Your task to perform on an android device: Open Chrome and go to settings Image 0: 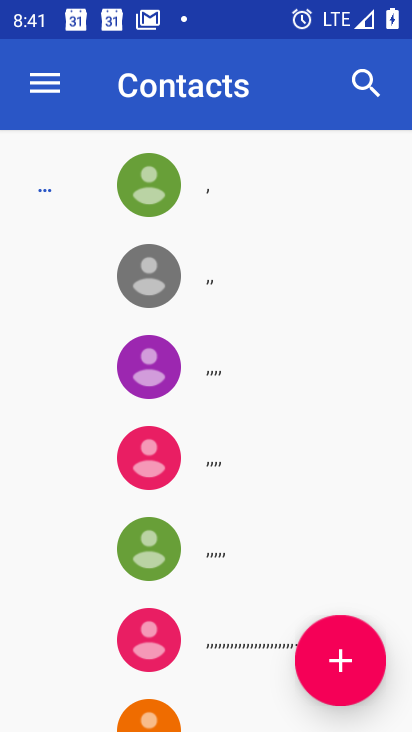
Step 0: press home button
Your task to perform on an android device: Open Chrome and go to settings Image 1: 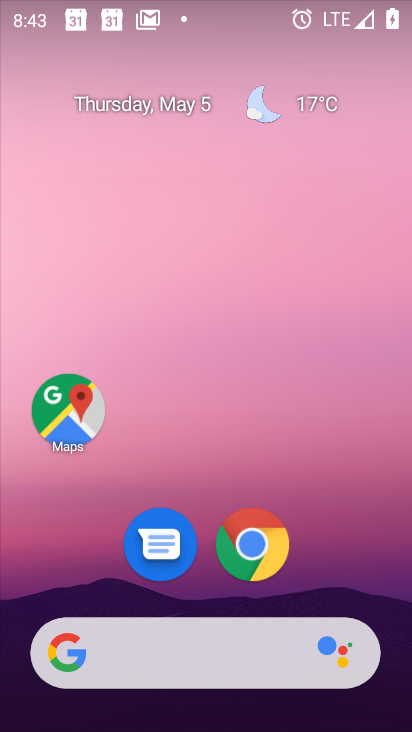
Step 1: click (285, 552)
Your task to perform on an android device: Open Chrome and go to settings Image 2: 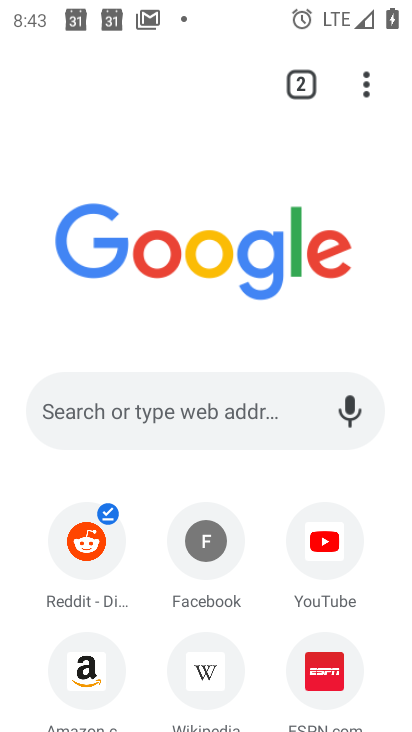
Step 2: click (361, 97)
Your task to perform on an android device: Open Chrome and go to settings Image 3: 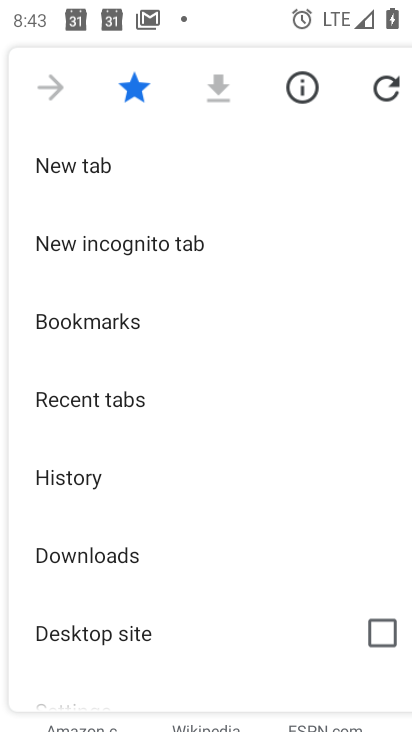
Step 3: drag from (162, 599) to (162, 237)
Your task to perform on an android device: Open Chrome and go to settings Image 4: 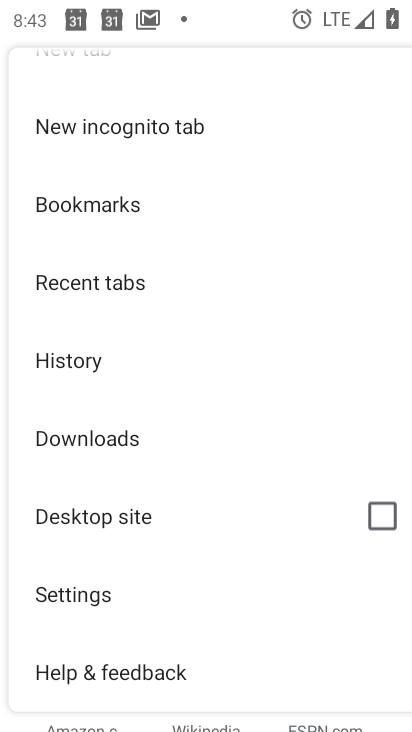
Step 4: click (105, 592)
Your task to perform on an android device: Open Chrome and go to settings Image 5: 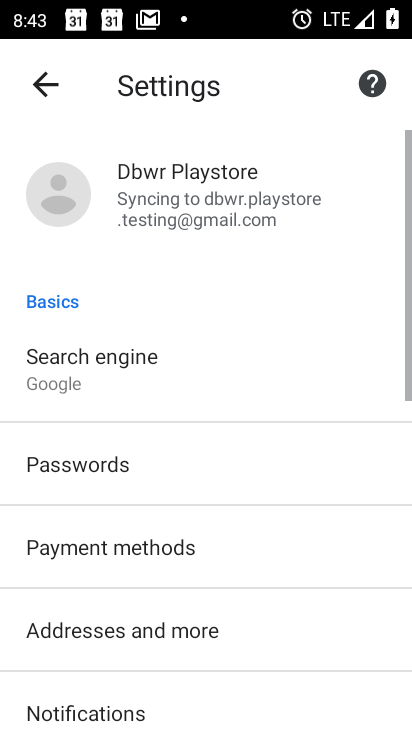
Step 5: task complete